Your task to perform on an android device: What is the recent news? Image 0: 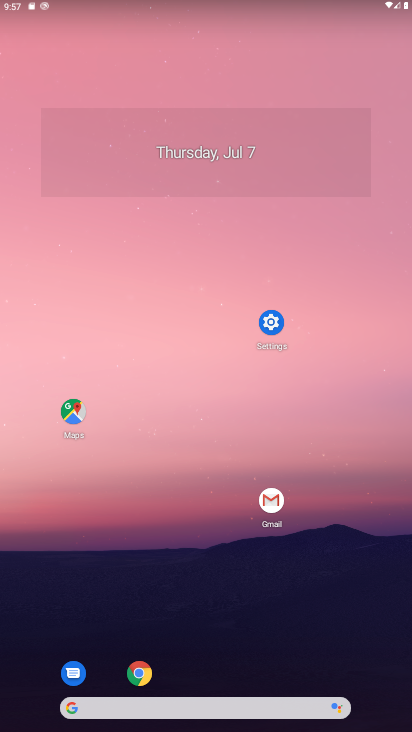
Step 0: drag from (0, 262) to (408, 275)
Your task to perform on an android device: What is the recent news? Image 1: 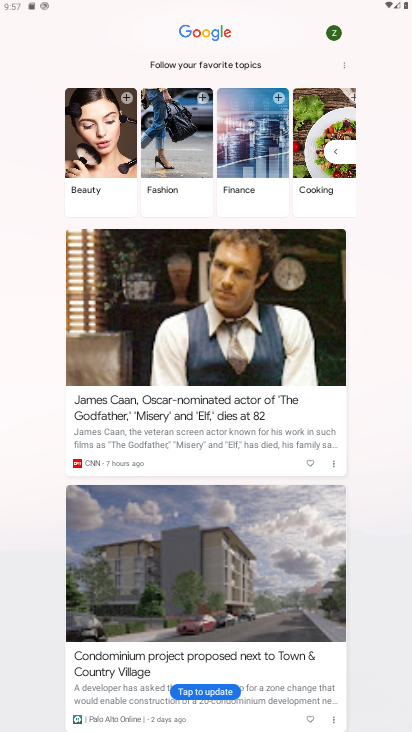
Step 1: task complete